Your task to perform on an android device: add a label to a message in the gmail app Image 0: 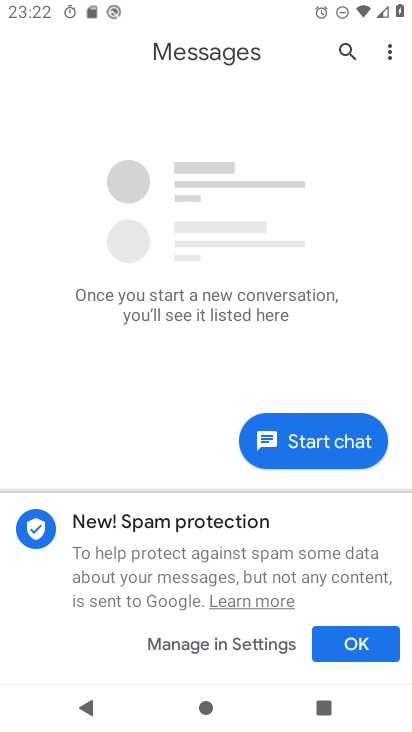
Step 0: press home button
Your task to perform on an android device: add a label to a message in the gmail app Image 1: 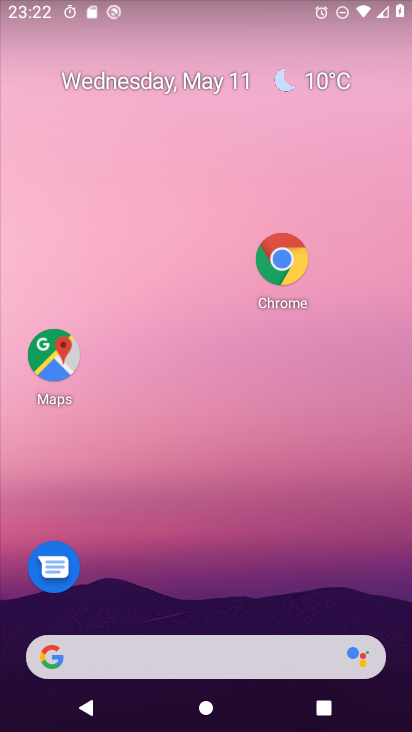
Step 1: drag from (184, 650) to (304, 219)
Your task to perform on an android device: add a label to a message in the gmail app Image 2: 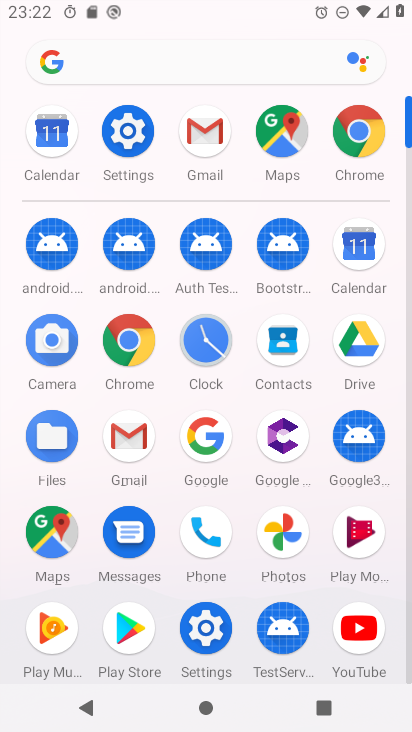
Step 2: click (206, 138)
Your task to perform on an android device: add a label to a message in the gmail app Image 3: 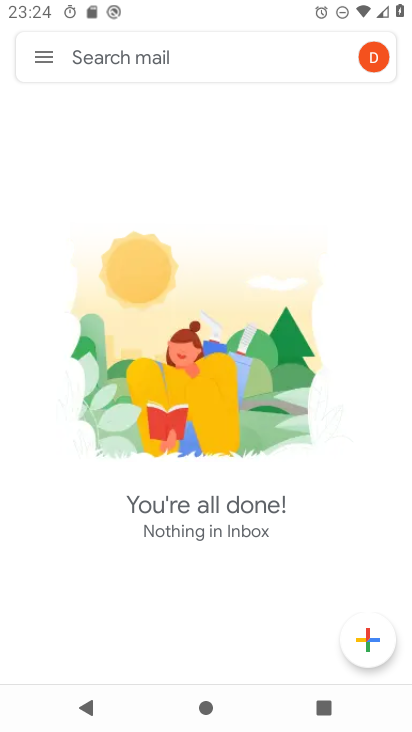
Step 3: task complete